Your task to perform on an android device: Show me recent news Image 0: 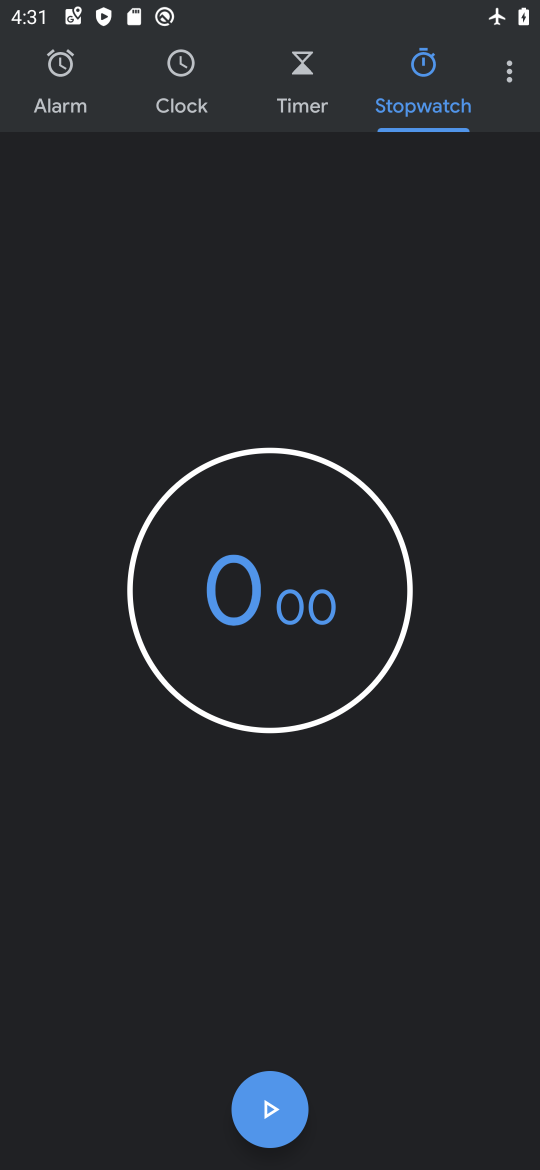
Step 0: press home button
Your task to perform on an android device: Show me recent news Image 1: 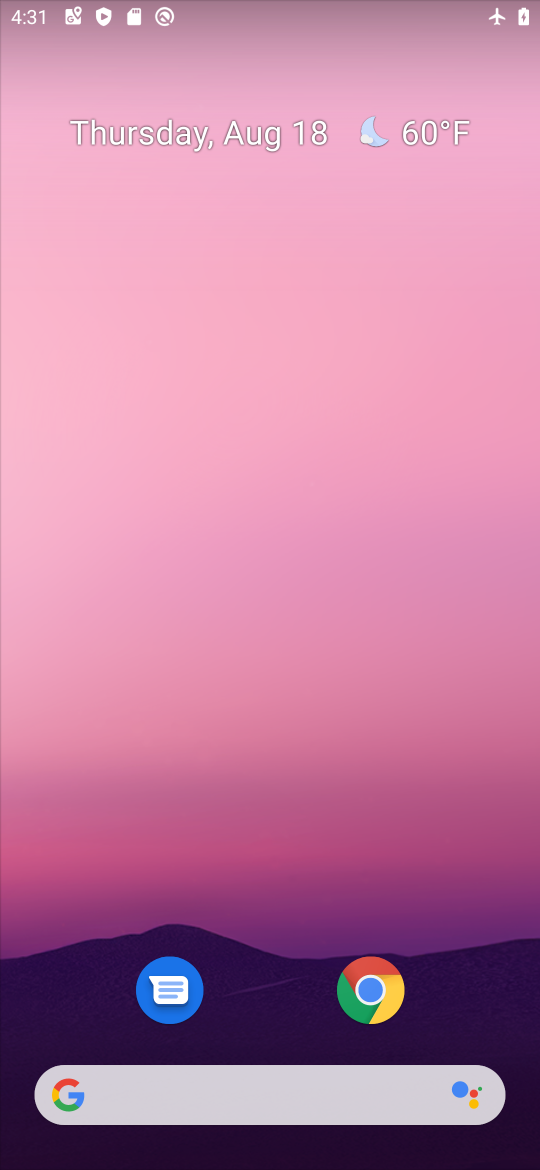
Step 1: drag from (270, 925) to (398, 157)
Your task to perform on an android device: Show me recent news Image 2: 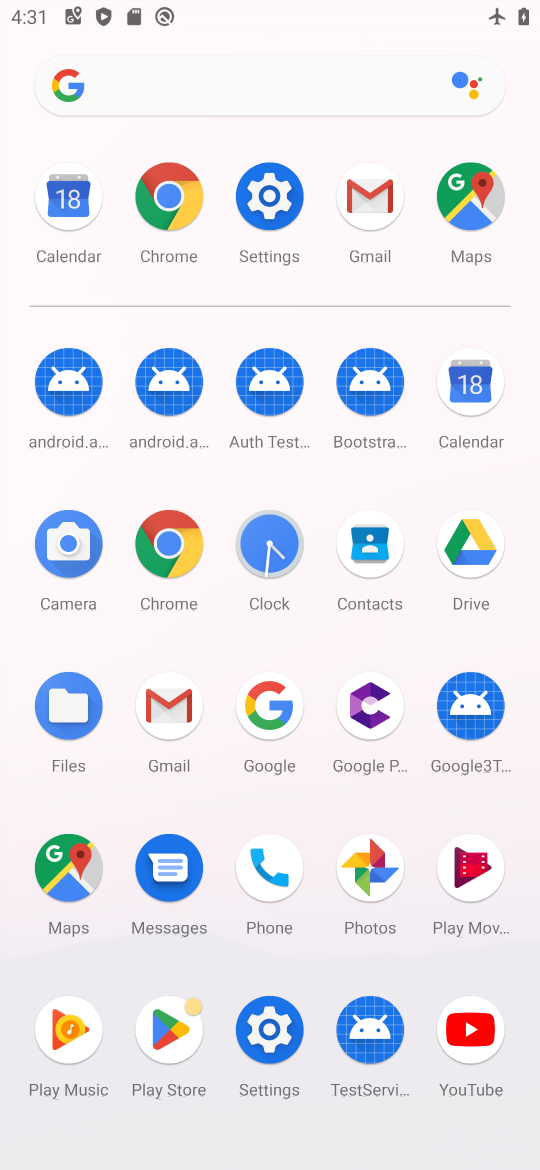
Step 2: click (172, 542)
Your task to perform on an android device: Show me recent news Image 3: 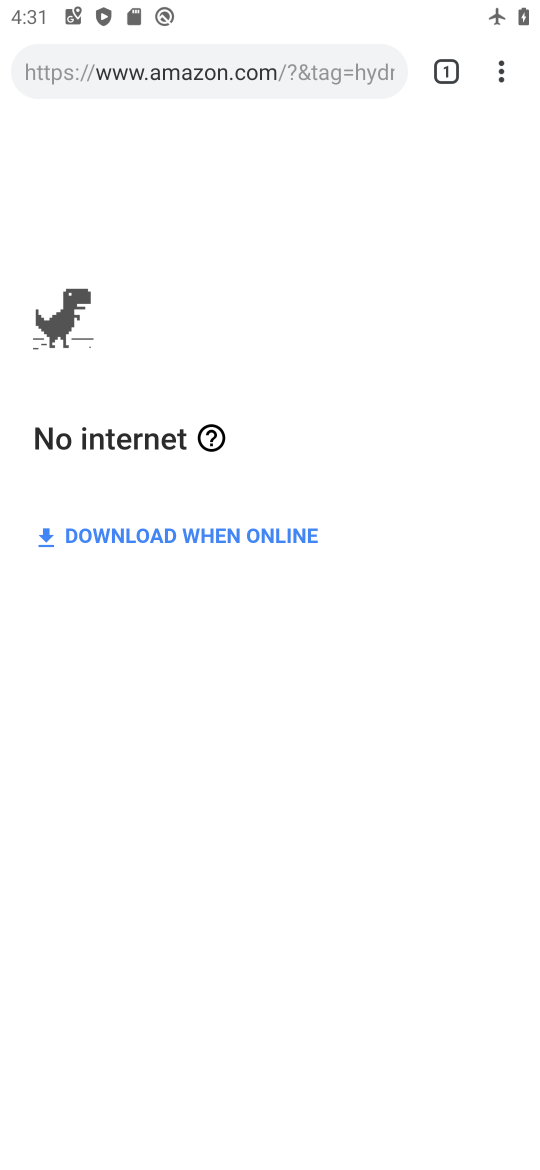
Step 3: click (364, 70)
Your task to perform on an android device: Show me recent news Image 4: 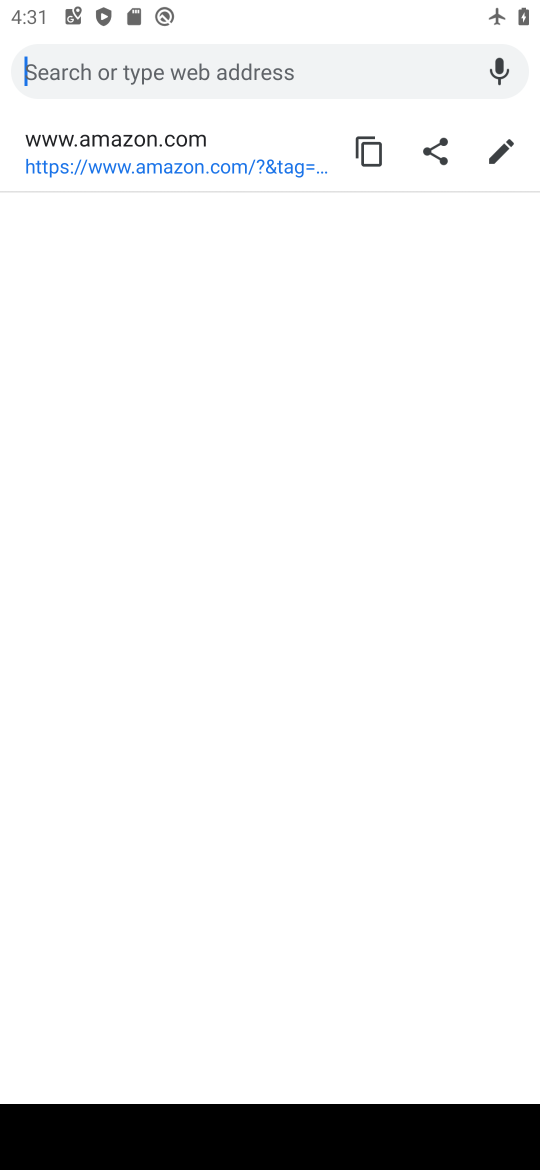
Step 4: type "news"
Your task to perform on an android device: Show me recent news Image 5: 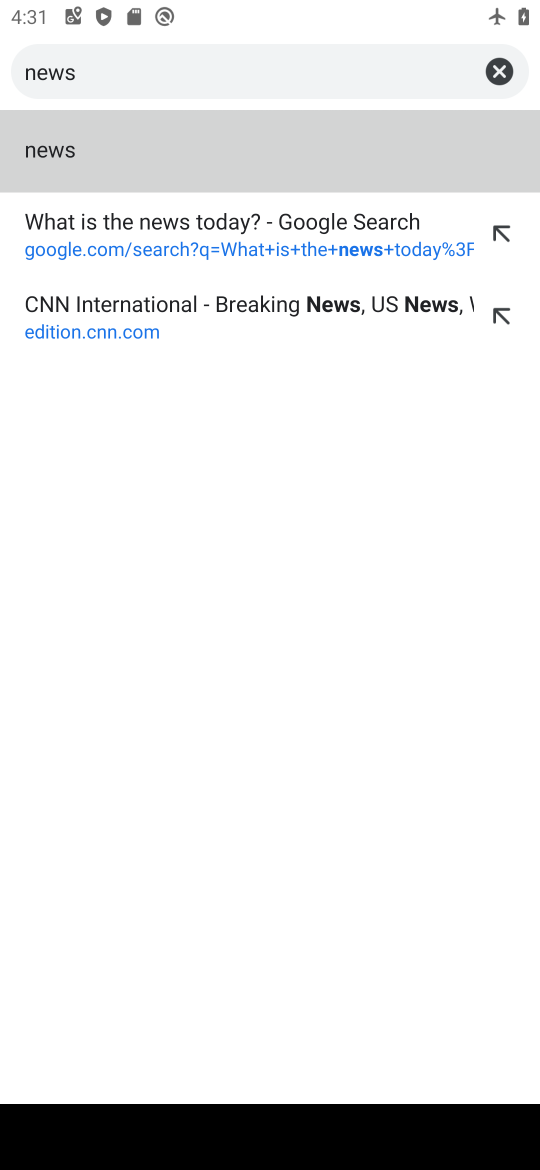
Step 5: click (109, 134)
Your task to perform on an android device: Show me recent news Image 6: 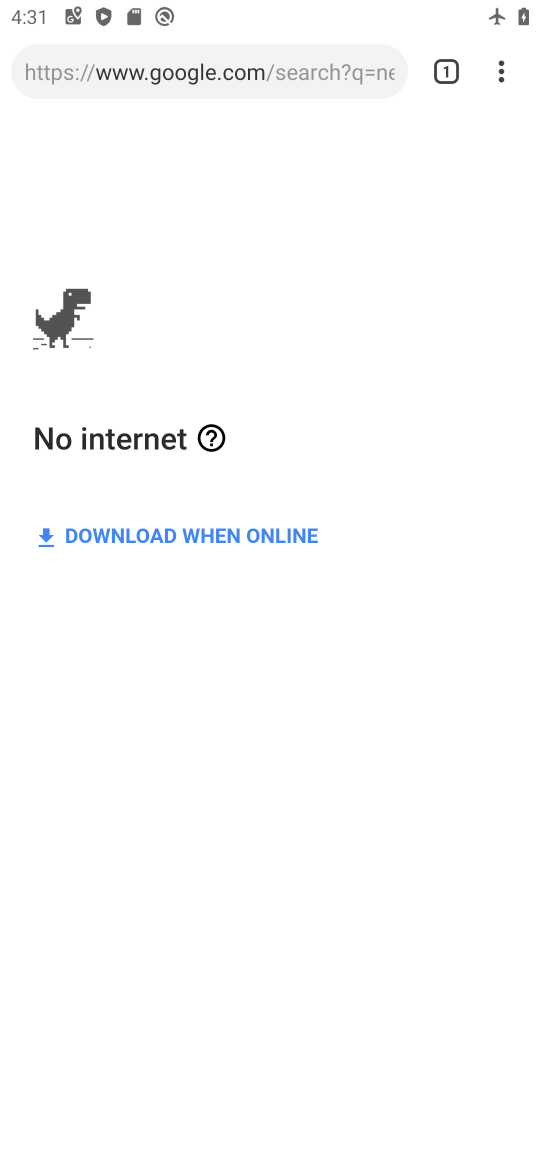
Step 6: task complete